Your task to perform on an android device: change the clock display to digital Image 0: 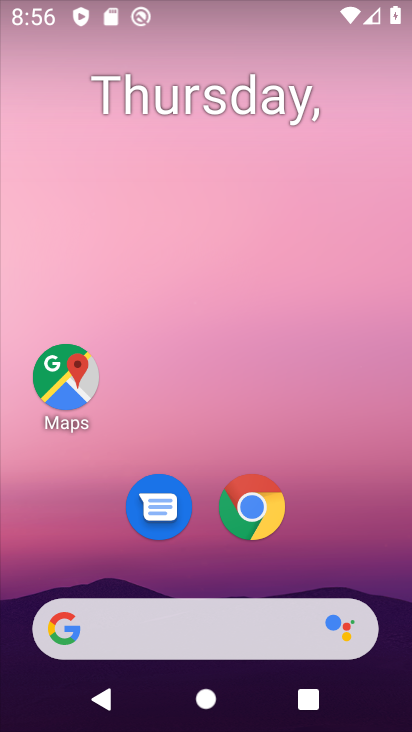
Step 0: drag from (381, 514) to (308, 99)
Your task to perform on an android device: change the clock display to digital Image 1: 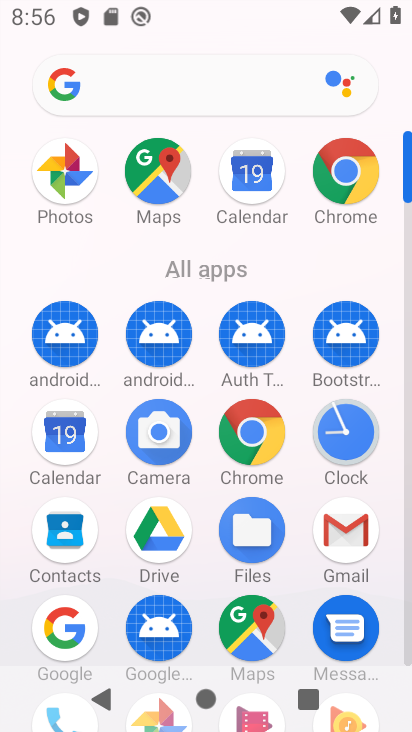
Step 1: click (354, 452)
Your task to perform on an android device: change the clock display to digital Image 2: 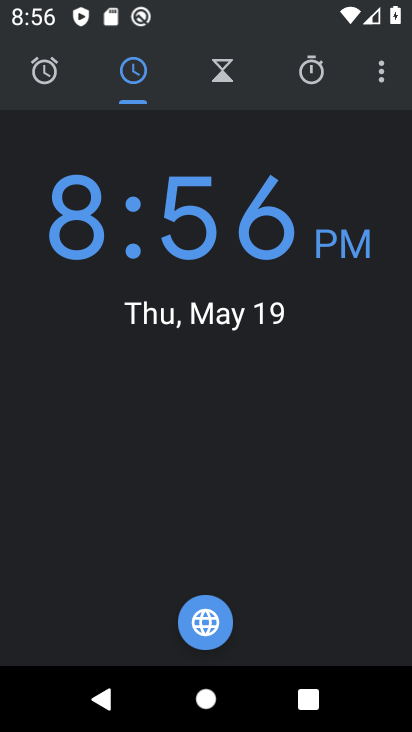
Step 2: click (379, 65)
Your task to perform on an android device: change the clock display to digital Image 3: 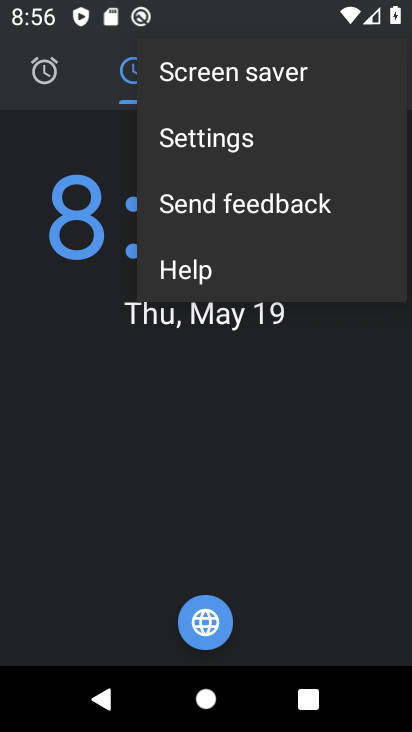
Step 3: click (299, 141)
Your task to perform on an android device: change the clock display to digital Image 4: 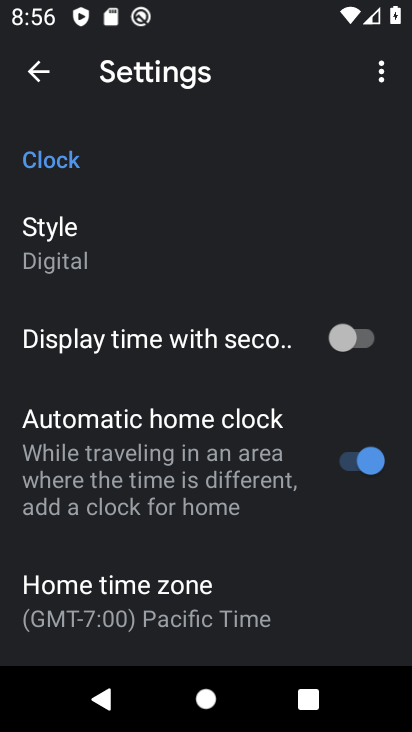
Step 4: click (175, 237)
Your task to perform on an android device: change the clock display to digital Image 5: 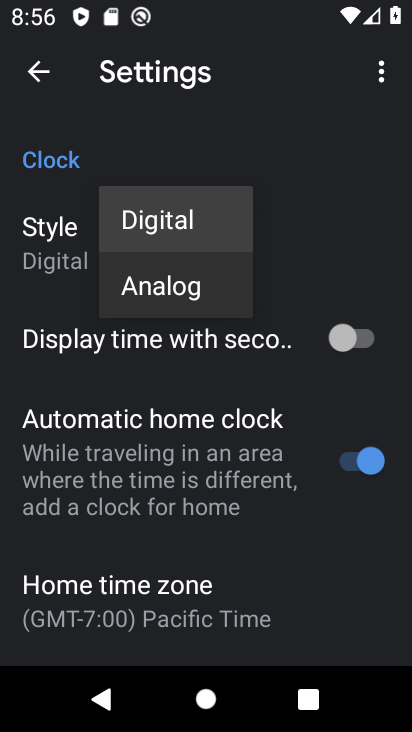
Step 5: task complete